Your task to perform on an android device: open wifi settings Image 0: 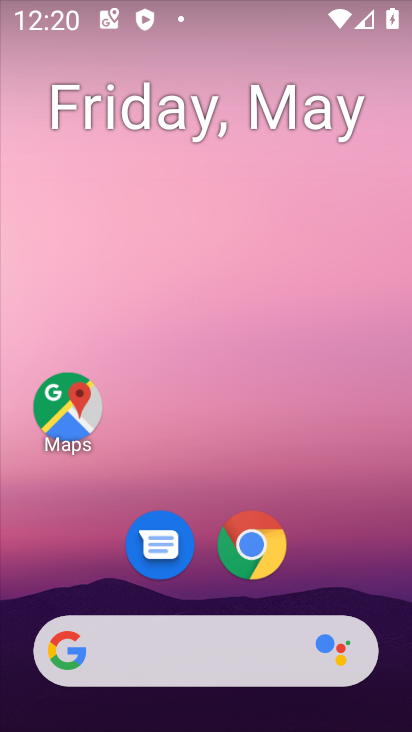
Step 0: drag from (321, 423) to (304, 323)
Your task to perform on an android device: open wifi settings Image 1: 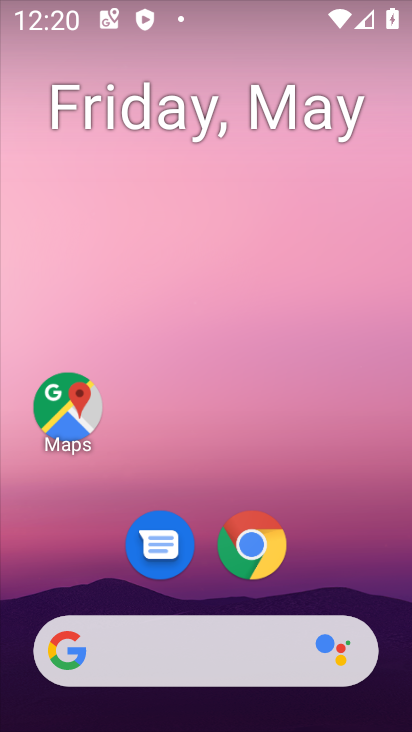
Step 1: drag from (337, 494) to (302, 133)
Your task to perform on an android device: open wifi settings Image 2: 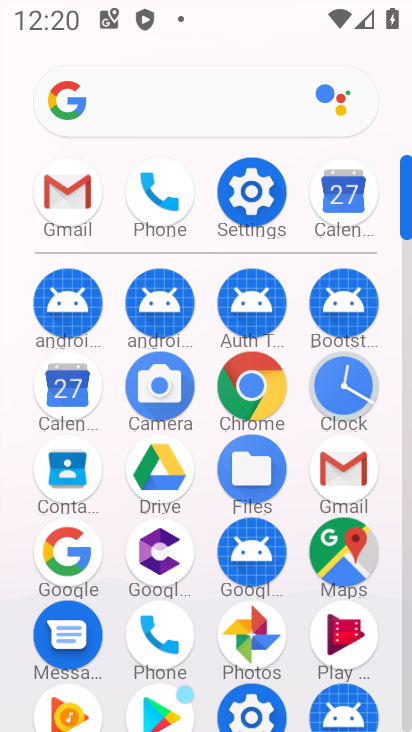
Step 2: click (261, 178)
Your task to perform on an android device: open wifi settings Image 3: 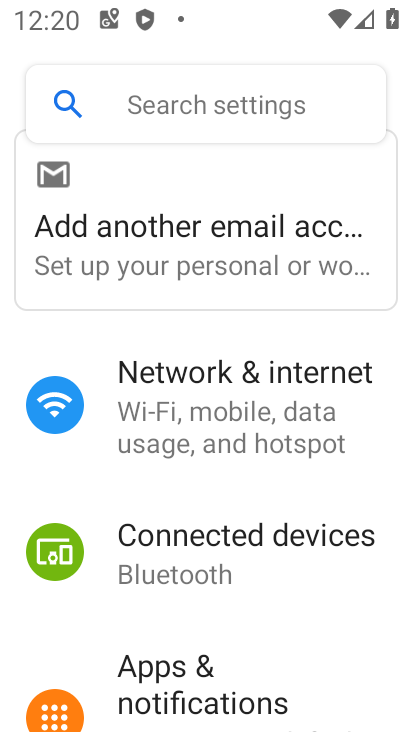
Step 3: click (177, 407)
Your task to perform on an android device: open wifi settings Image 4: 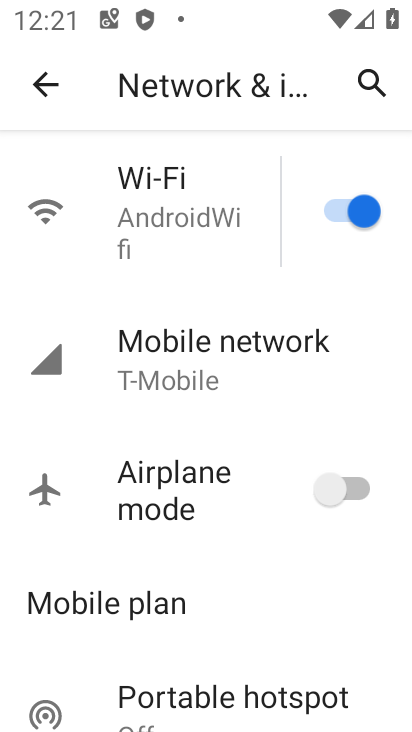
Step 4: task complete